Your task to perform on an android device: Open Wikipedia Image 0: 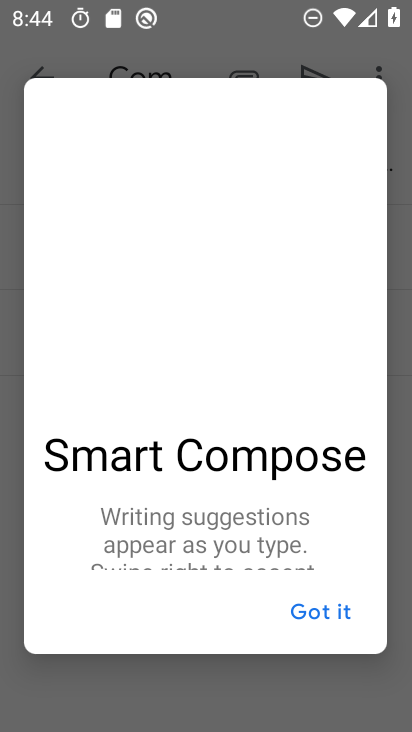
Step 0: drag from (392, 632) to (296, 222)
Your task to perform on an android device: Open Wikipedia Image 1: 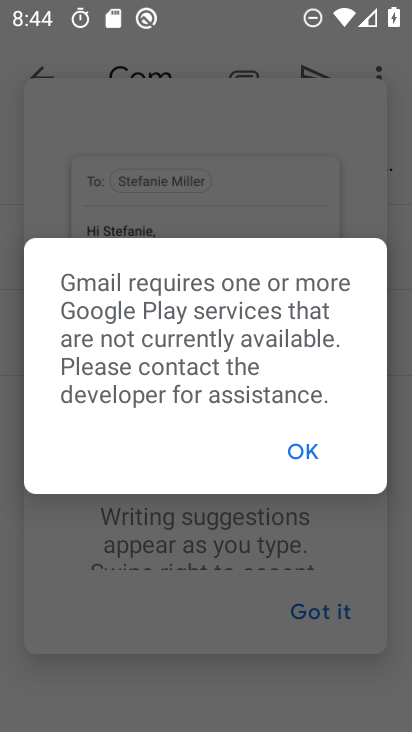
Step 1: press home button
Your task to perform on an android device: Open Wikipedia Image 2: 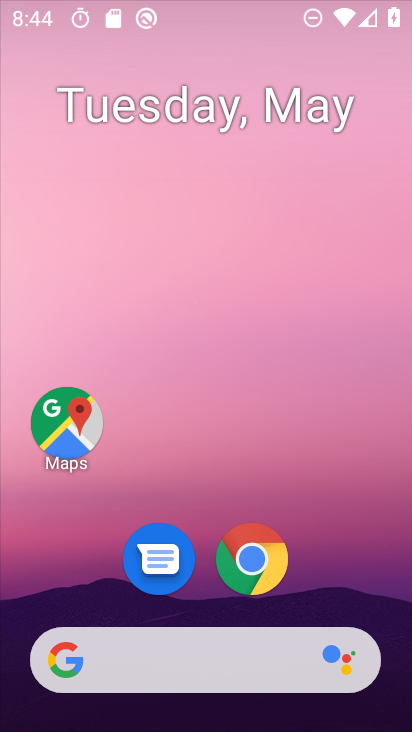
Step 2: drag from (390, 666) to (254, 28)
Your task to perform on an android device: Open Wikipedia Image 3: 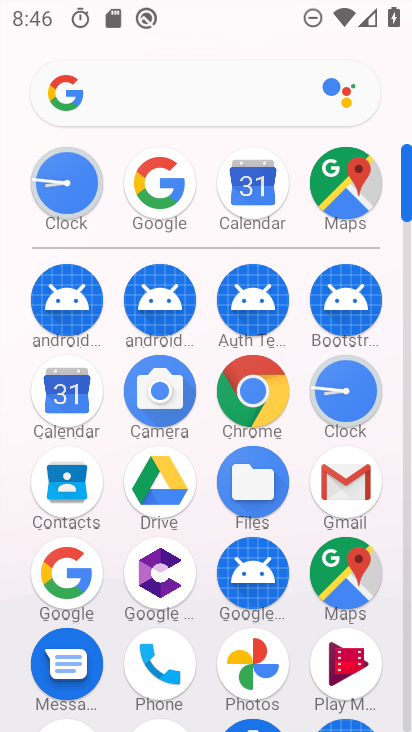
Step 3: click (84, 572)
Your task to perform on an android device: Open Wikipedia Image 4: 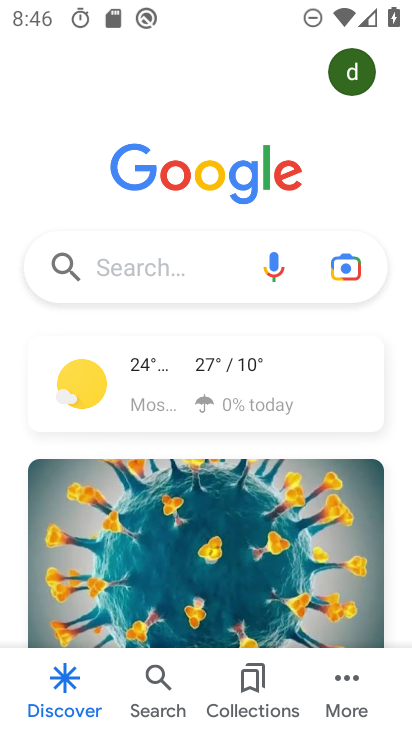
Step 4: click (153, 256)
Your task to perform on an android device: Open Wikipedia Image 5: 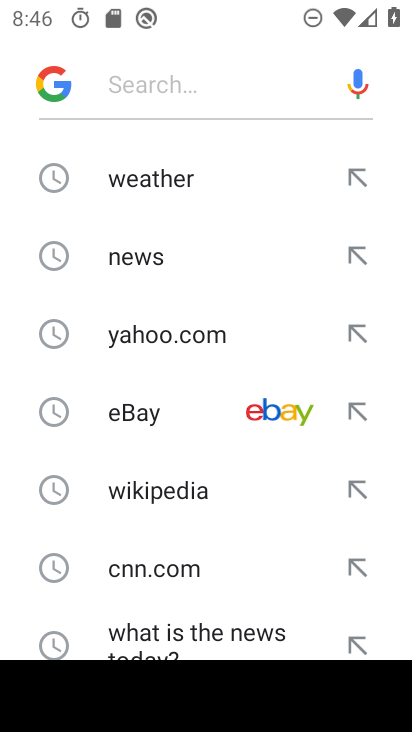
Step 5: click (198, 483)
Your task to perform on an android device: Open Wikipedia Image 6: 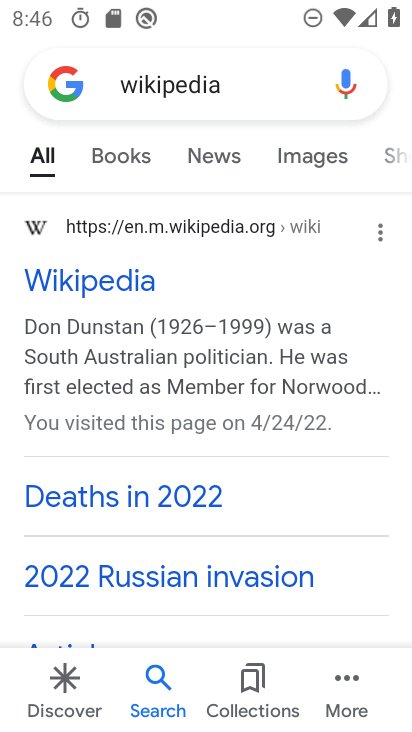
Step 6: task complete